Your task to perform on an android device: delete the emails in spam in the gmail app Image 0: 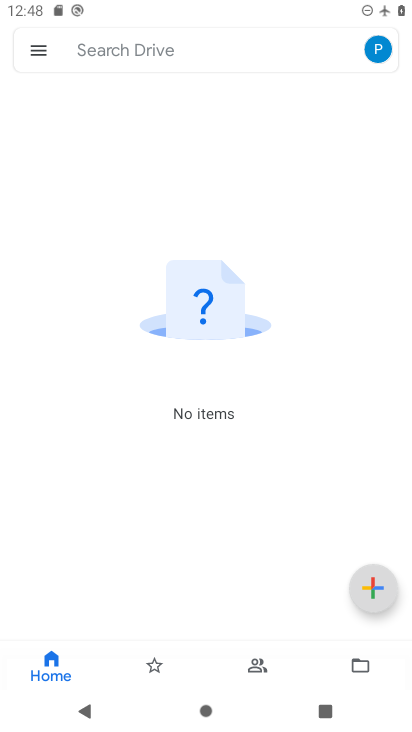
Step 0: press home button
Your task to perform on an android device: delete the emails in spam in the gmail app Image 1: 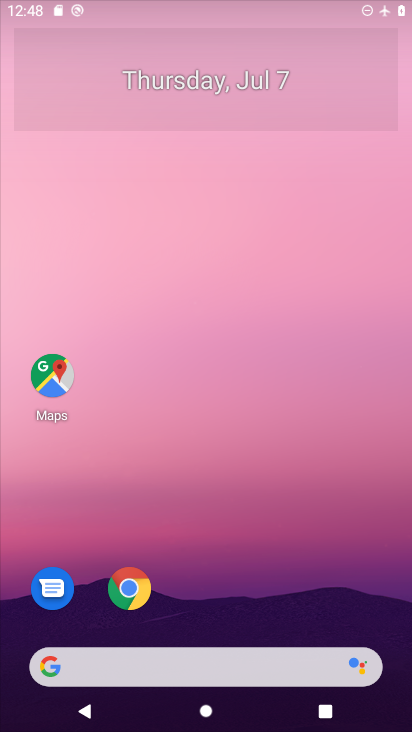
Step 1: drag from (241, 645) to (304, 6)
Your task to perform on an android device: delete the emails in spam in the gmail app Image 2: 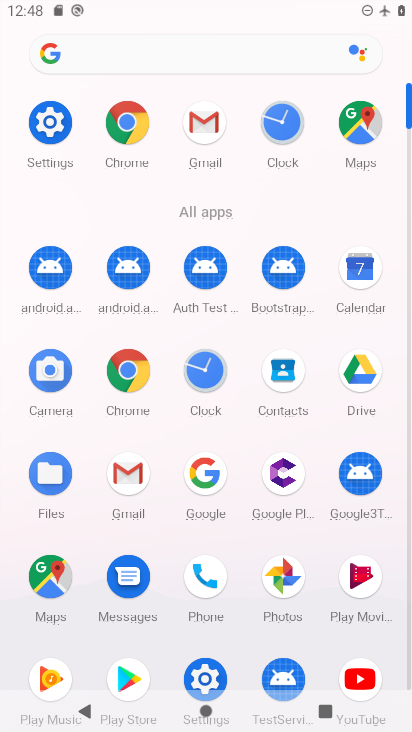
Step 2: click (112, 482)
Your task to perform on an android device: delete the emails in spam in the gmail app Image 3: 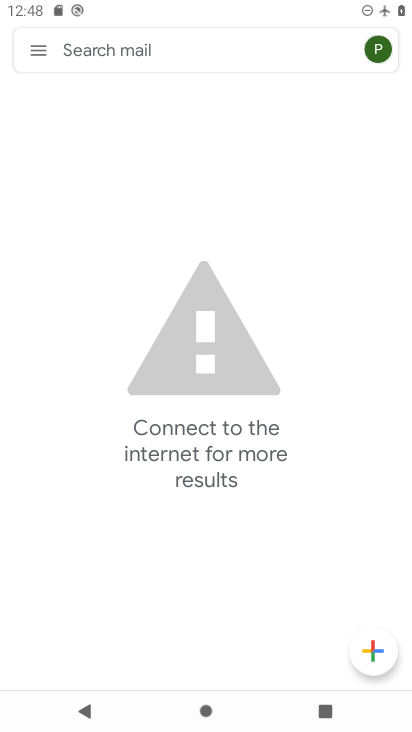
Step 3: click (35, 37)
Your task to perform on an android device: delete the emails in spam in the gmail app Image 4: 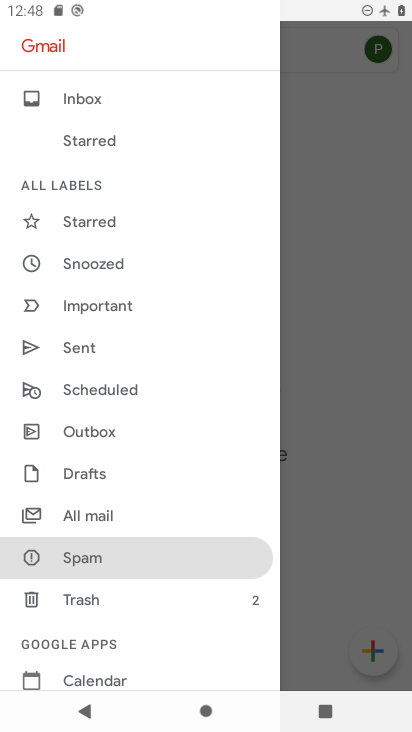
Step 4: click (101, 571)
Your task to perform on an android device: delete the emails in spam in the gmail app Image 5: 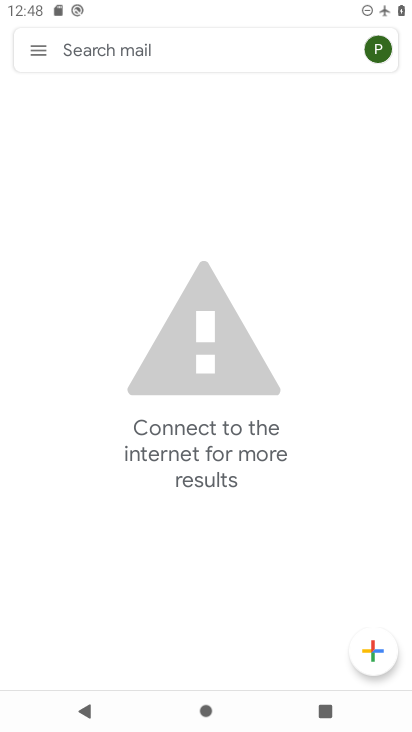
Step 5: task complete